Your task to perform on an android device: Play the last video I watched on Youtube Image 0: 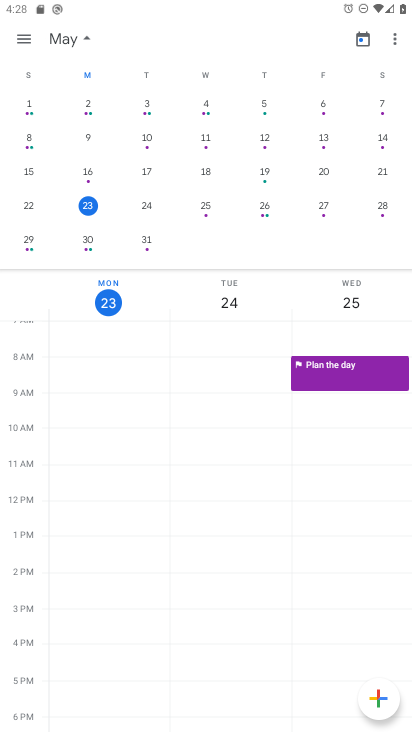
Step 0: press home button
Your task to perform on an android device: Play the last video I watched on Youtube Image 1: 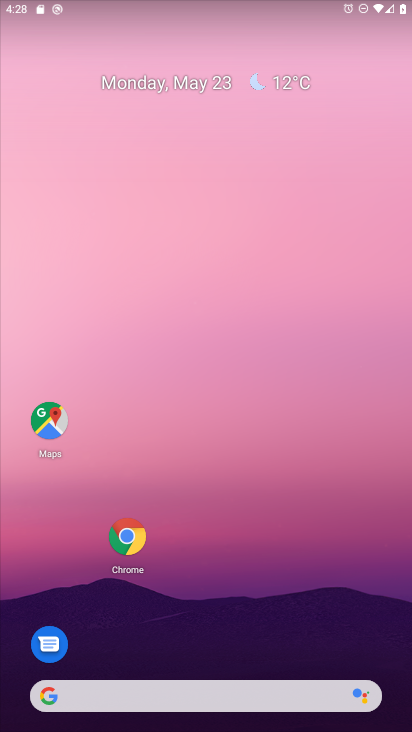
Step 1: drag from (246, 612) to (280, 220)
Your task to perform on an android device: Play the last video I watched on Youtube Image 2: 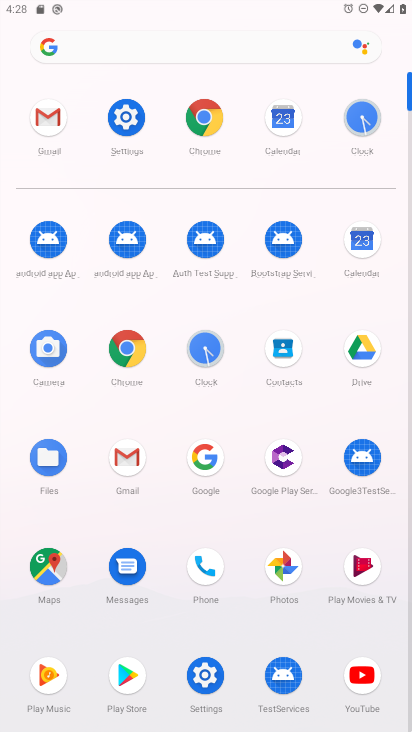
Step 2: click (353, 683)
Your task to perform on an android device: Play the last video I watched on Youtube Image 3: 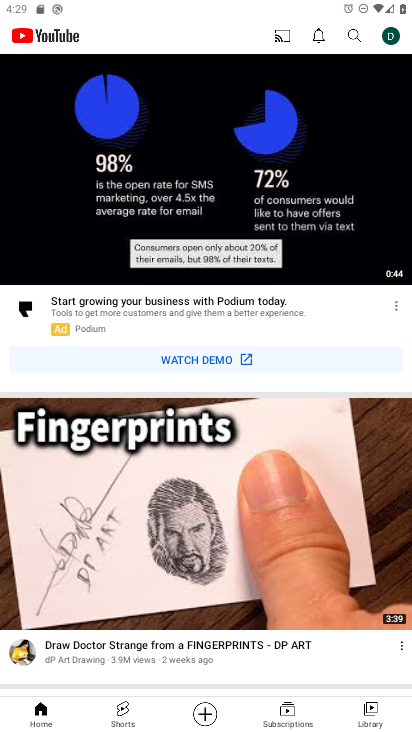
Step 3: click (370, 708)
Your task to perform on an android device: Play the last video I watched on Youtube Image 4: 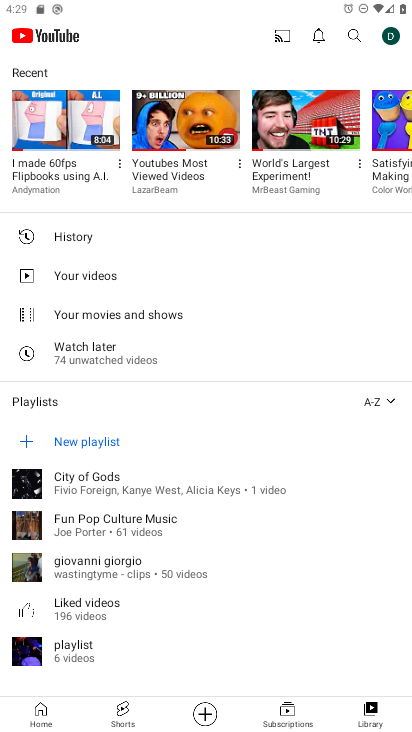
Step 4: click (82, 229)
Your task to perform on an android device: Play the last video I watched on Youtube Image 5: 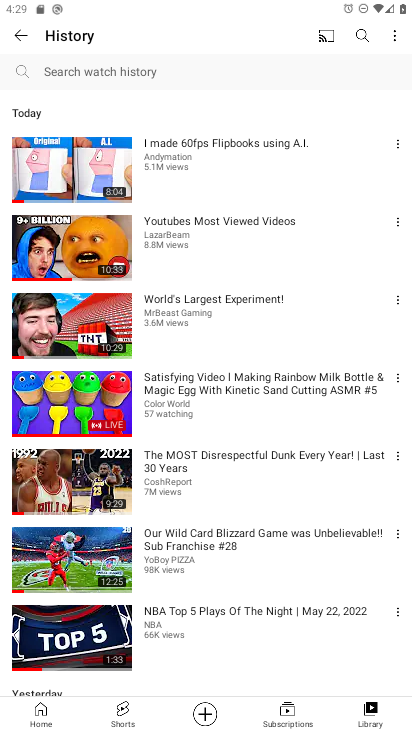
Step 5: click (14, 31)
Your task to perform on an android device: Play the last video I watched on Youtube Image 6: 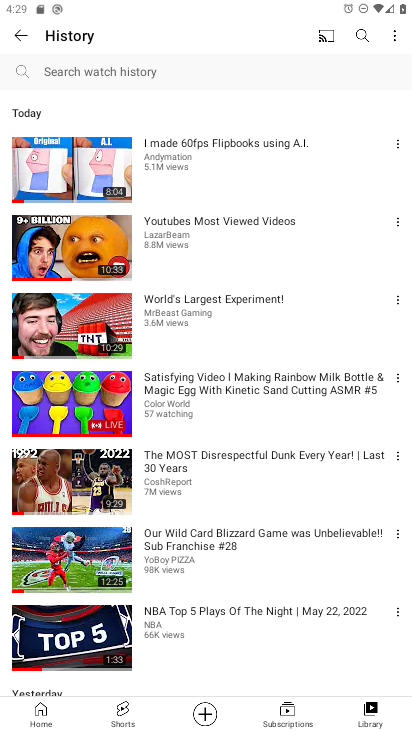
Step 6: click (20, 36)
Your task to perform on an android device: Play the last video I watched on Youtube Image 7: 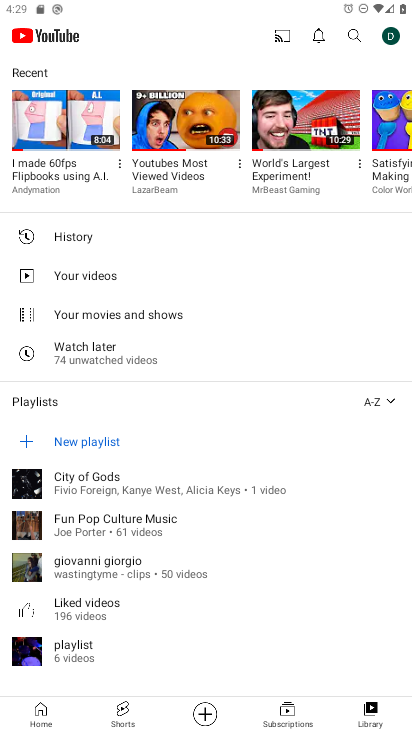
Step 7: click (53, 120)
Your task to perform on an android device: Play the last video I watched on Youtube Image 8: 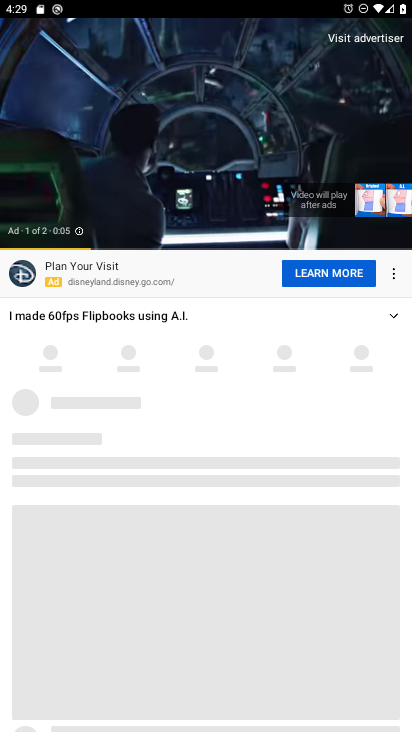
Step 8: task complete